Your task to perform on an android device: View the shopping cart on target. Search for "macbook" on target, select the first entry, add it to the cart, then select checkout. Image 0: 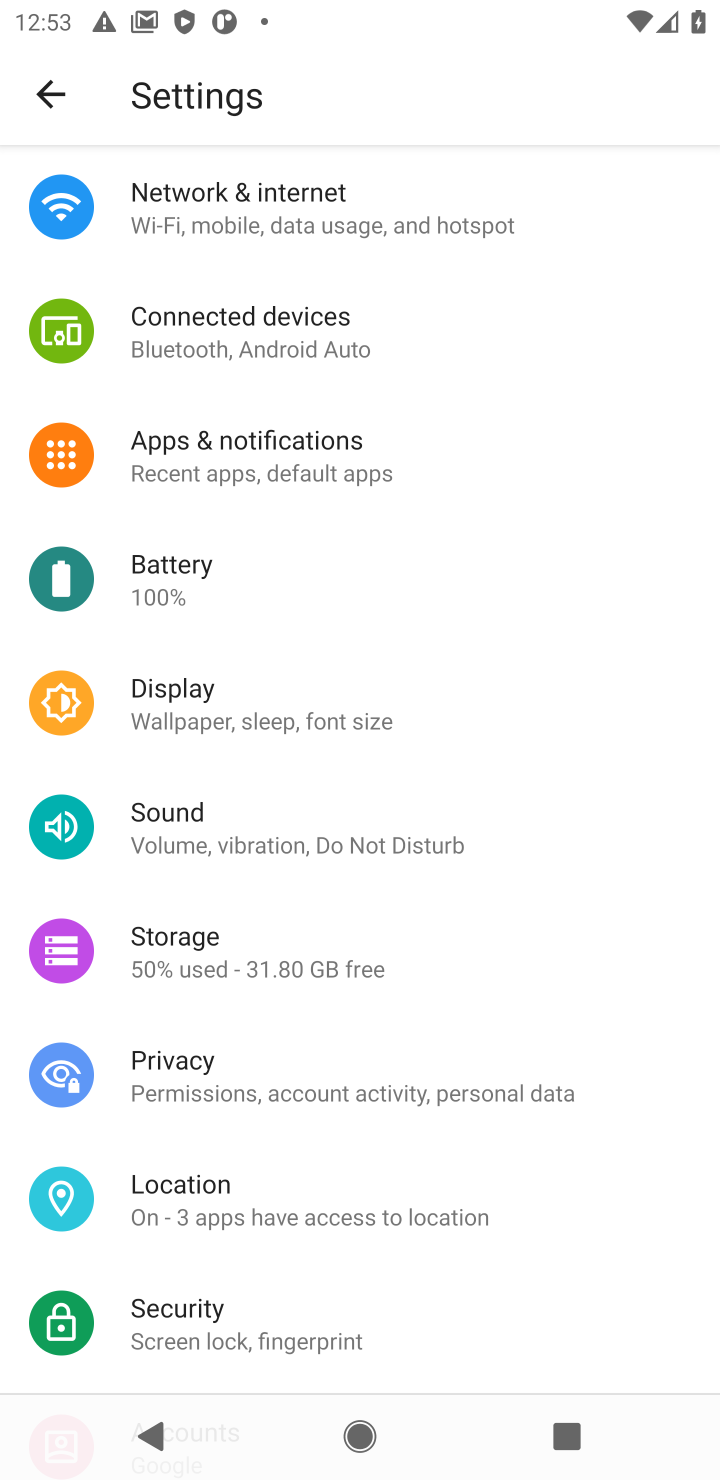
Step 0: press home button
Your task to perform on an android device: View the shopping cart on target. Search for "macbook" on target, select the first entry, add it to the cart, then select checkout. Image 1: 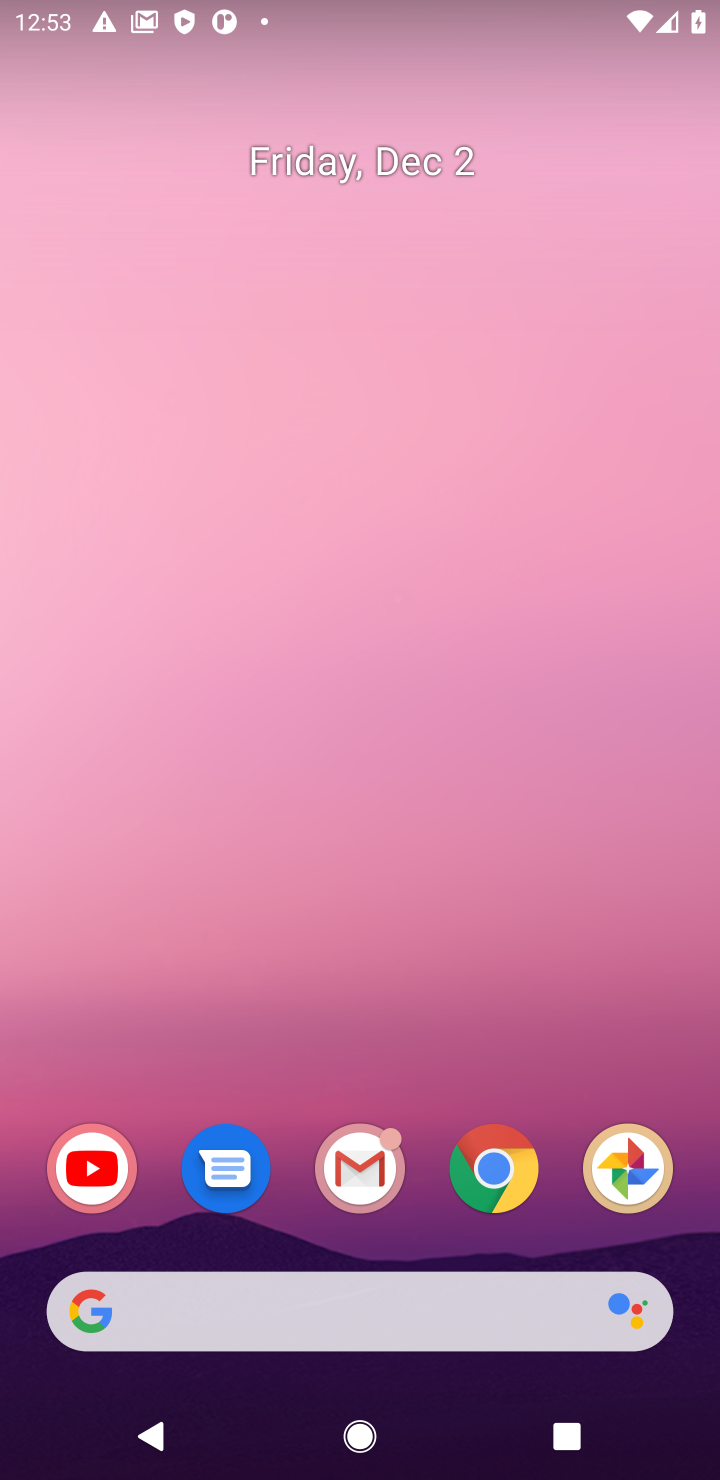
Step 1: click (477, 1172)
Your task to perform on an android device: View the shopping cart on target. Search for "macbook" on target, select the first entry, add it to the cart, then select checkout. Image 2: 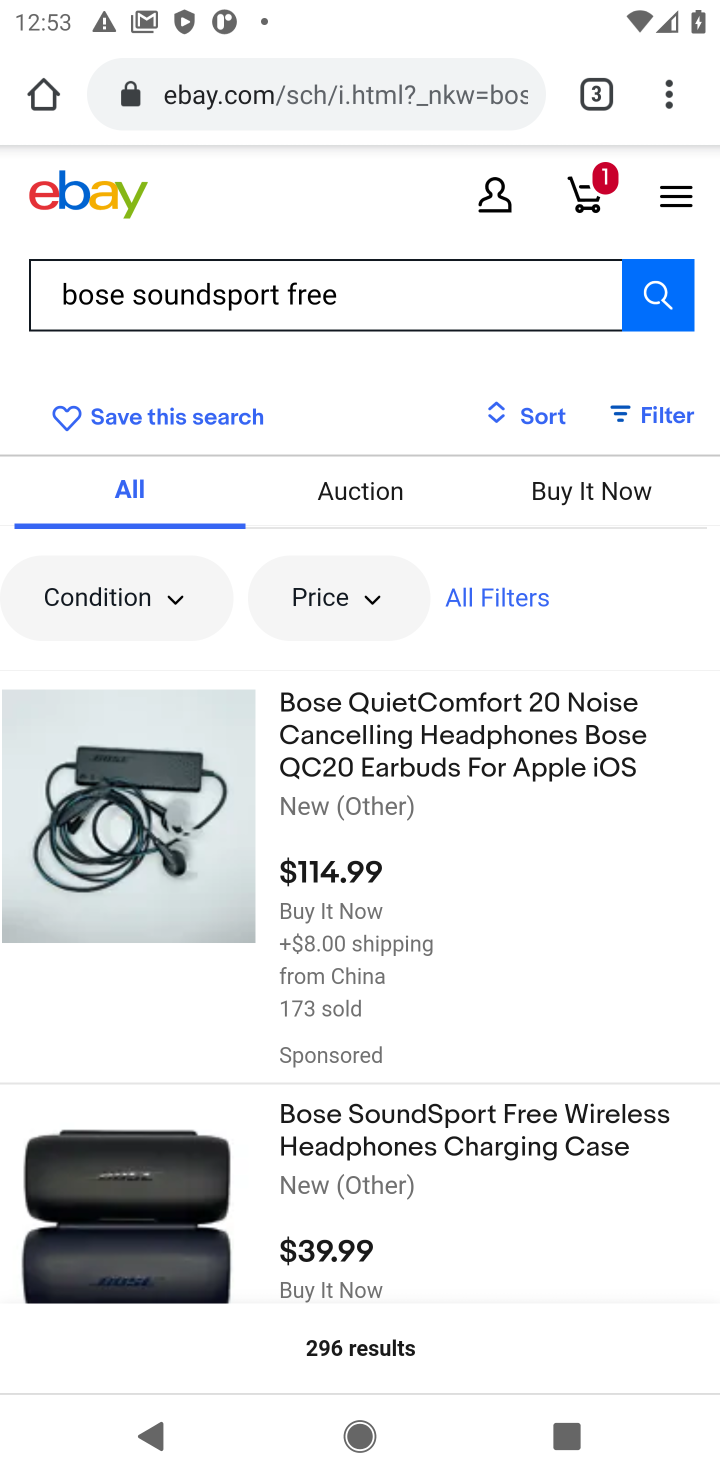
Step 2: click (255, 82)
Your task to perform on an android device: View the shopping cart on target. Search for "macbook" on target, select the first entry, add it to the cart, then select checkout. Image 3: 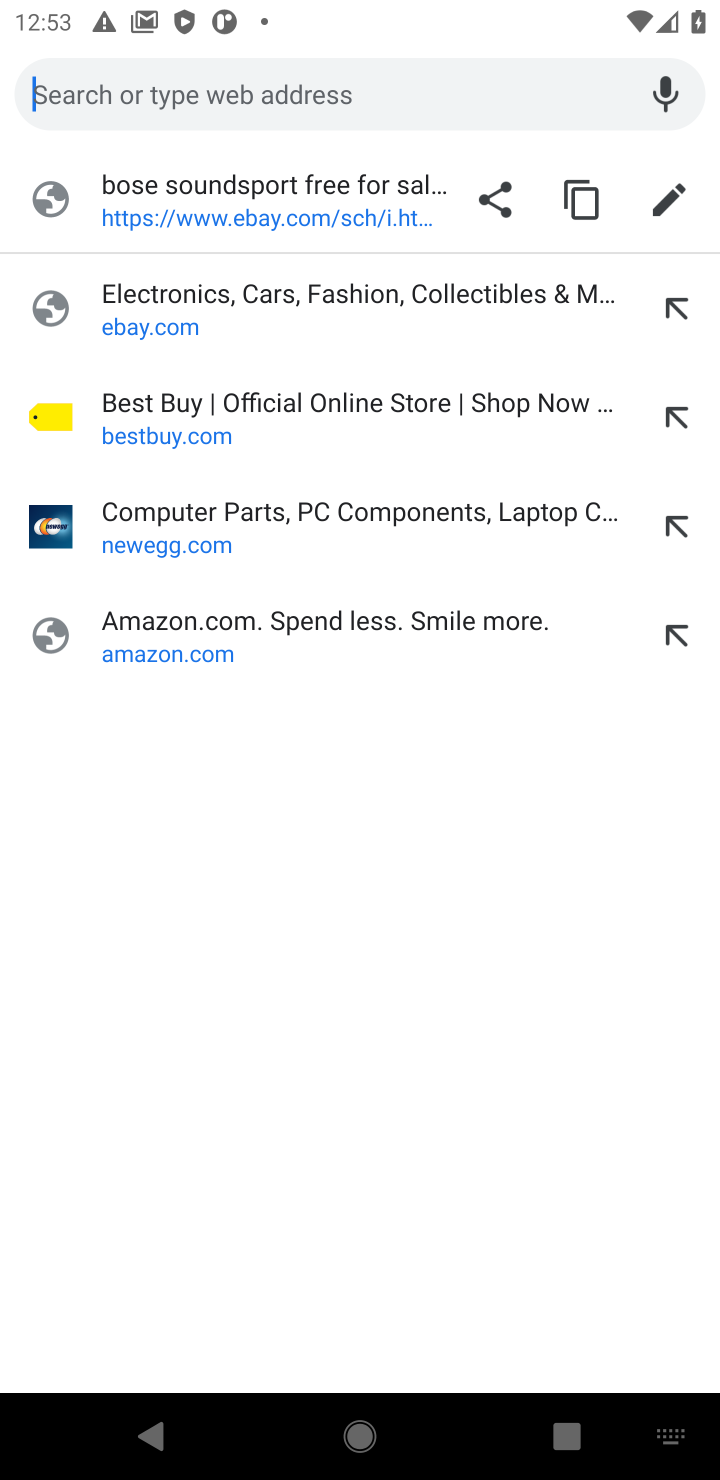
Step 3: type "target.com"
Your task to perform on an android device: View the shopping cart on target. Search for "macbook" on target, select the first entry, add it to the cart, then select checkout. Image 4: 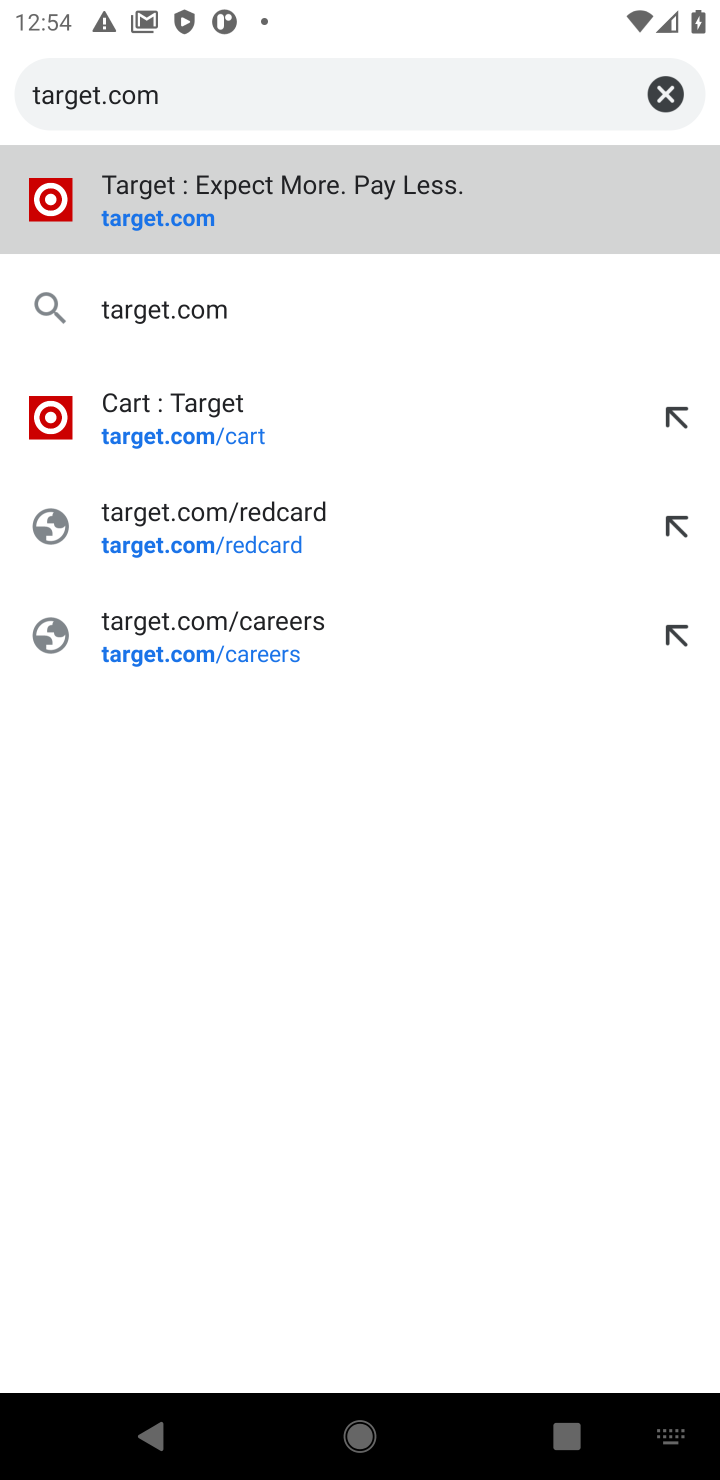
Step 4: click (156, 206)
Your task to perform on an android device: View the shopping cart on target. Search for "macbook" on target, select the first entry, add it to the cart, then select checkout. Image 5: 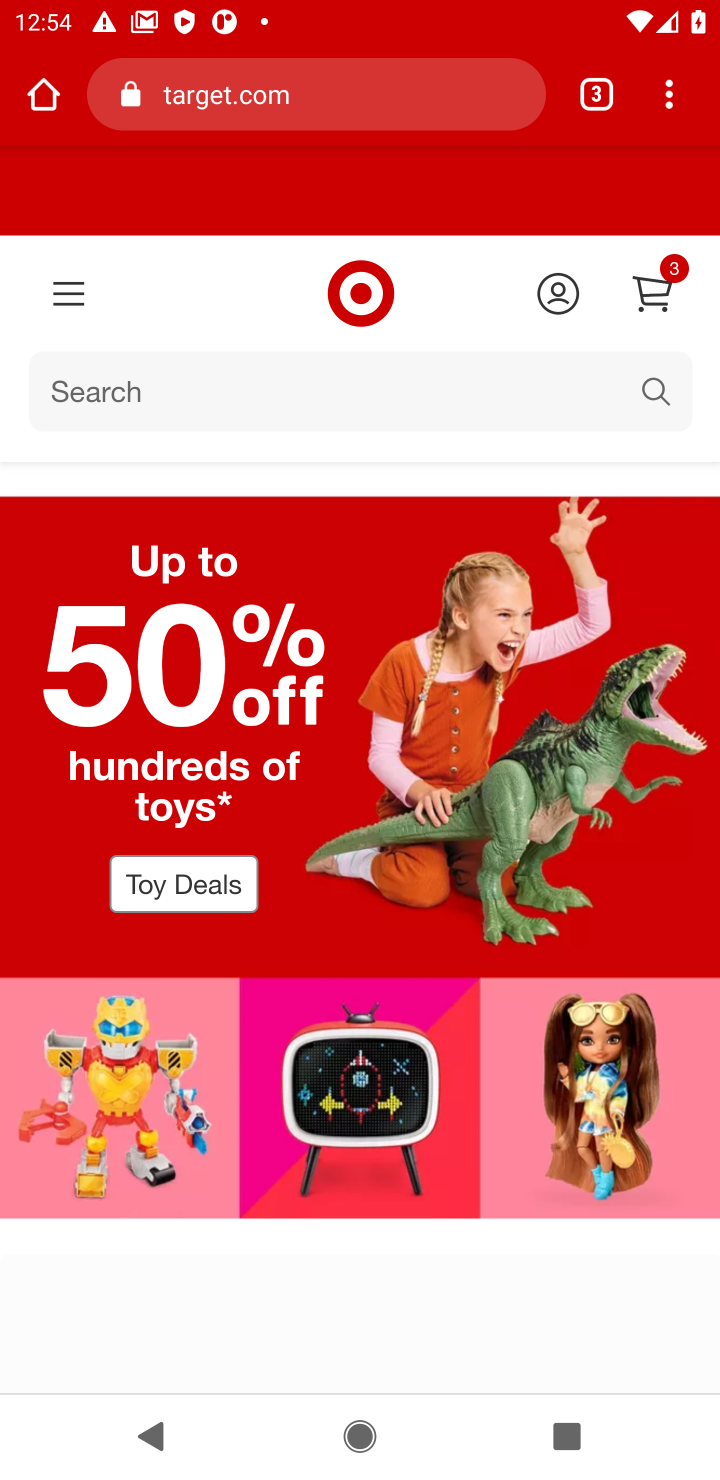
Step 5: click (658, 299)
Your task to perform on an android device: View the shopping cart on target. Search for "macbook" on target, select the first entry, add it to the cart, then select checkout. Image 6: 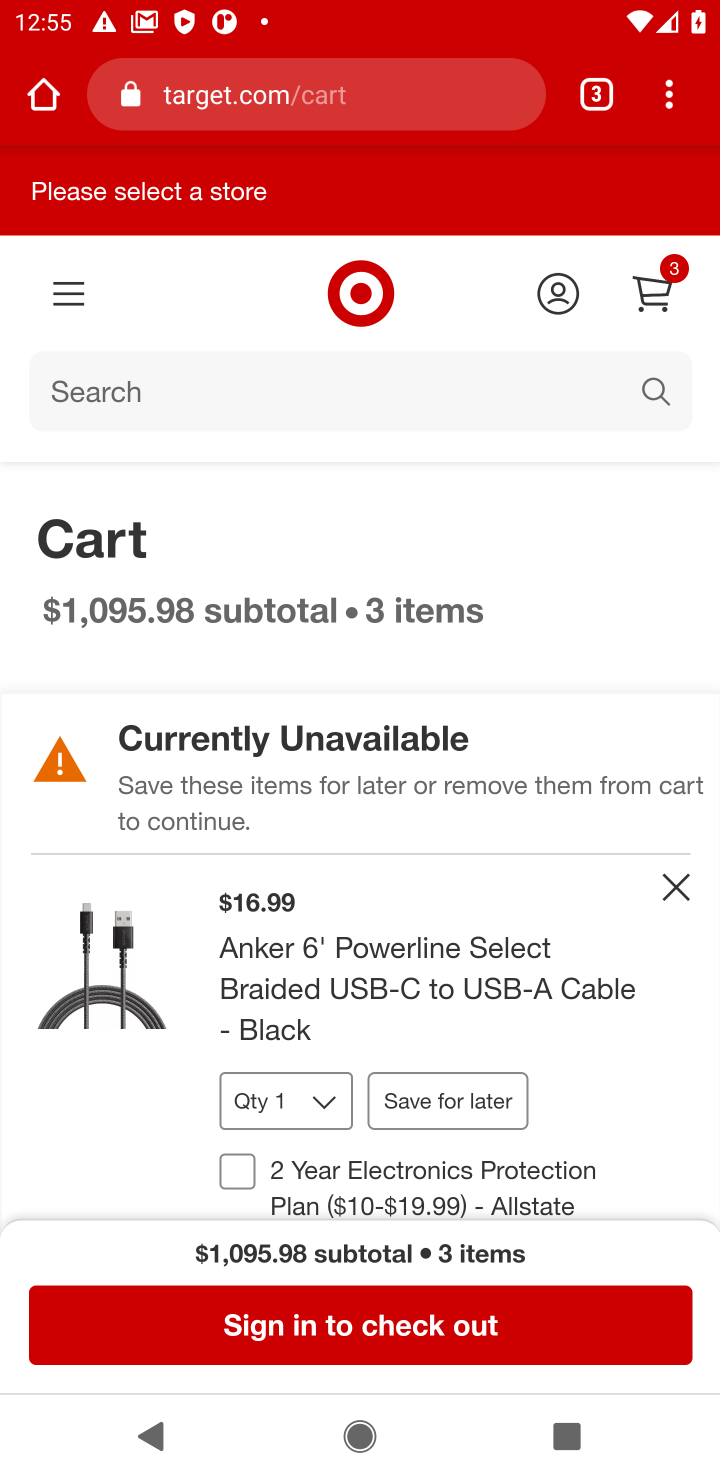
Step 6: drag from (521, 903) to (528, 609)
Your task to perform on an android device: View the shopping cart on target. Search for "macbook" on target, select the first entry, add it to the cart, then select checkout. Image 7: 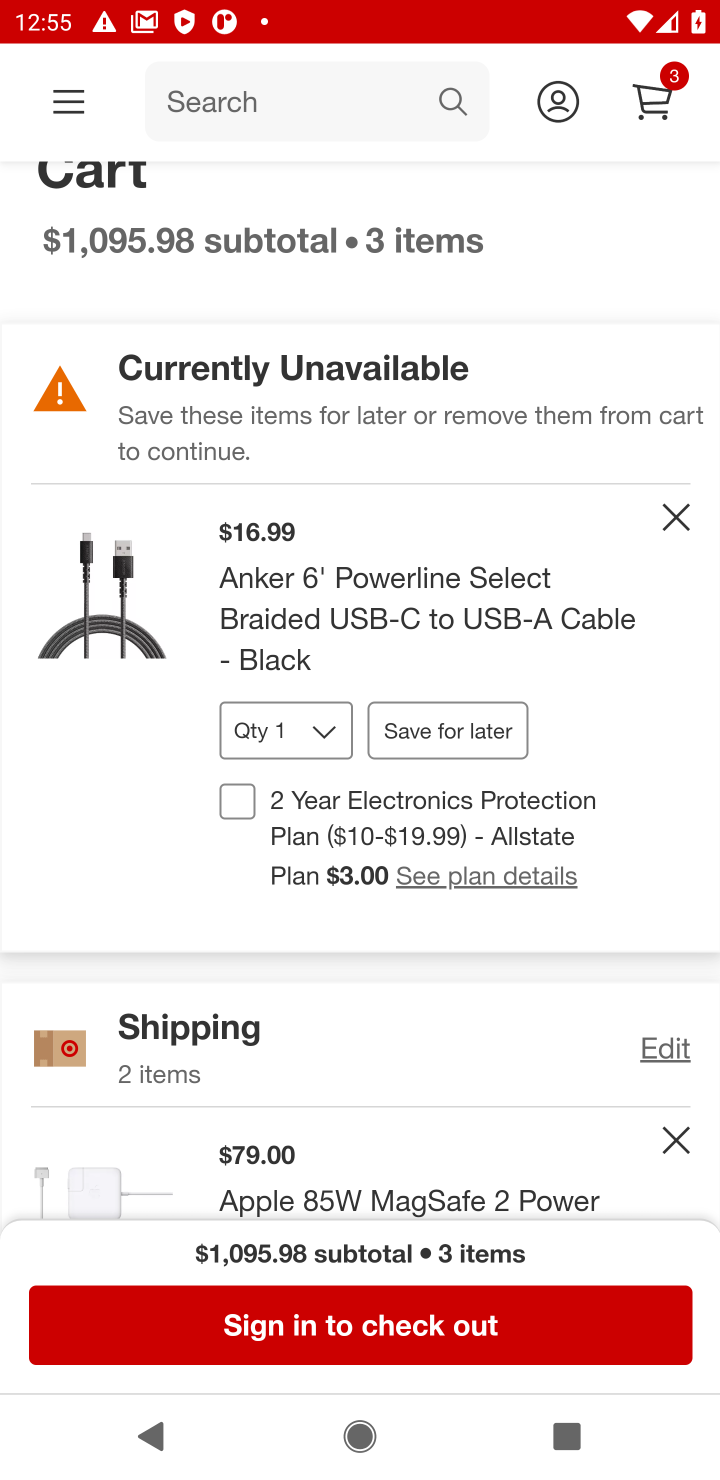
Step 7: click (197, 94)
Your task to perform on an android device: View the shopping cart on target. Search for "macbook" on target, select the first entry, add it to the cart, then select checkout. Image 8: 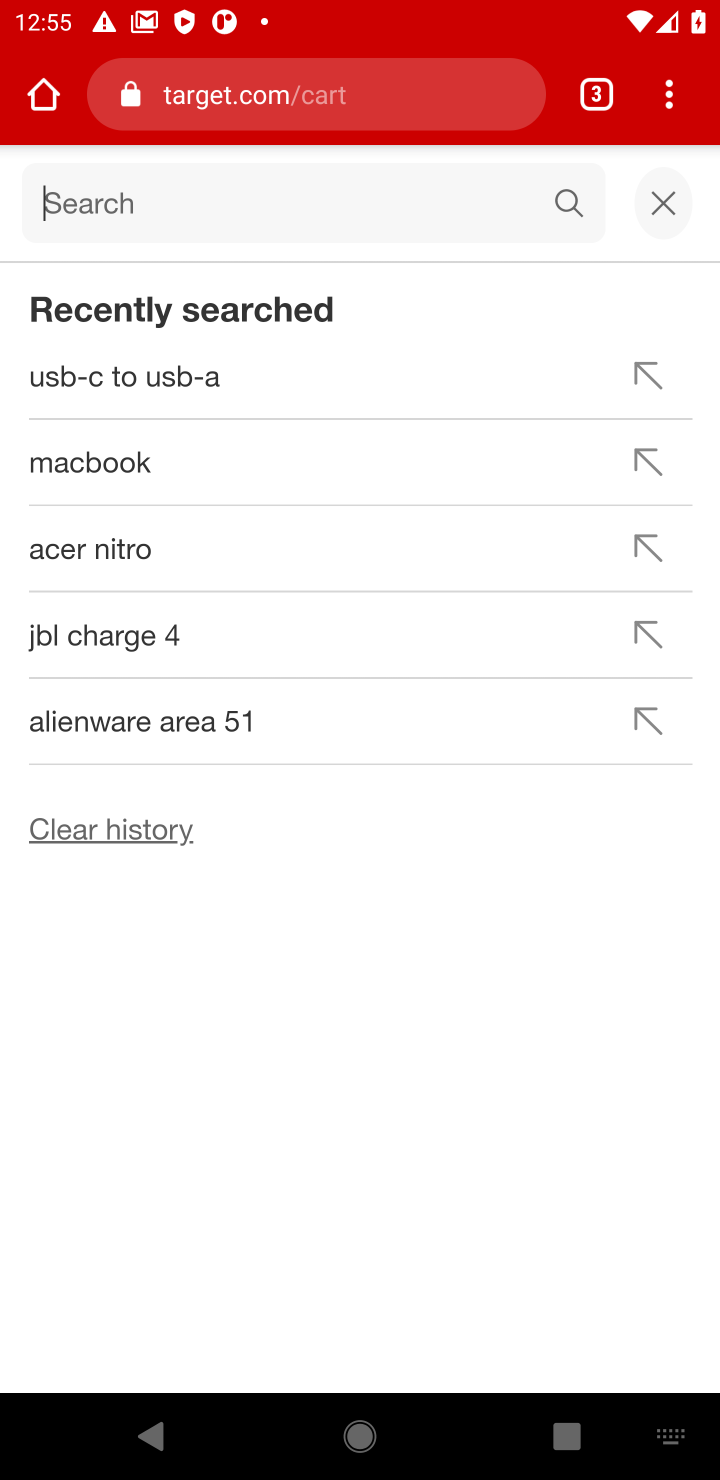
Step 8: type "macbook"
Your task to perform on an android device: View the shopping cart on target. Search for "macbook" on target, select the first entry, add it to the cart, then select checkout. Image 9: 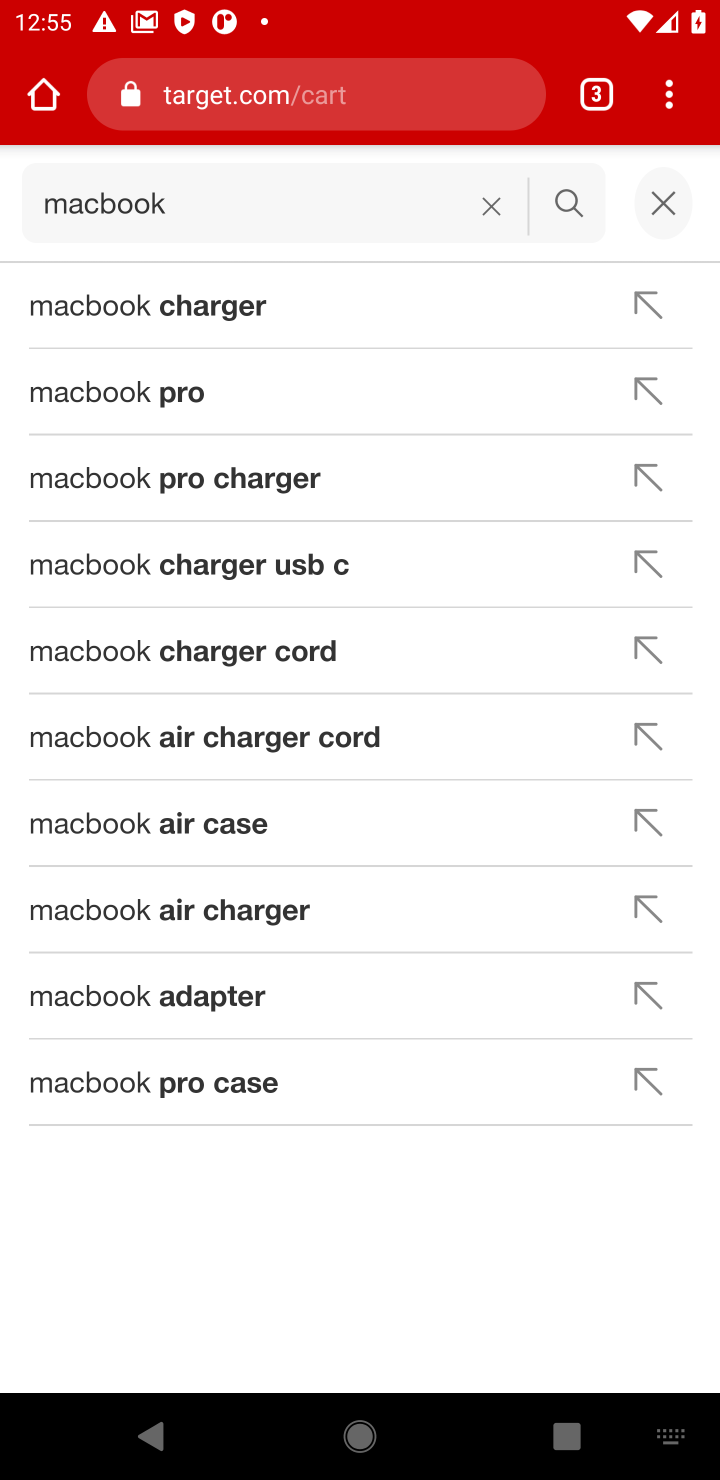
Step 9: click (562, 199)
Your task to perform on an android device: View the shopping cart on target. Search for "macbook" on target, select the first entry, add it to the cart, then select checkout. Image 10: 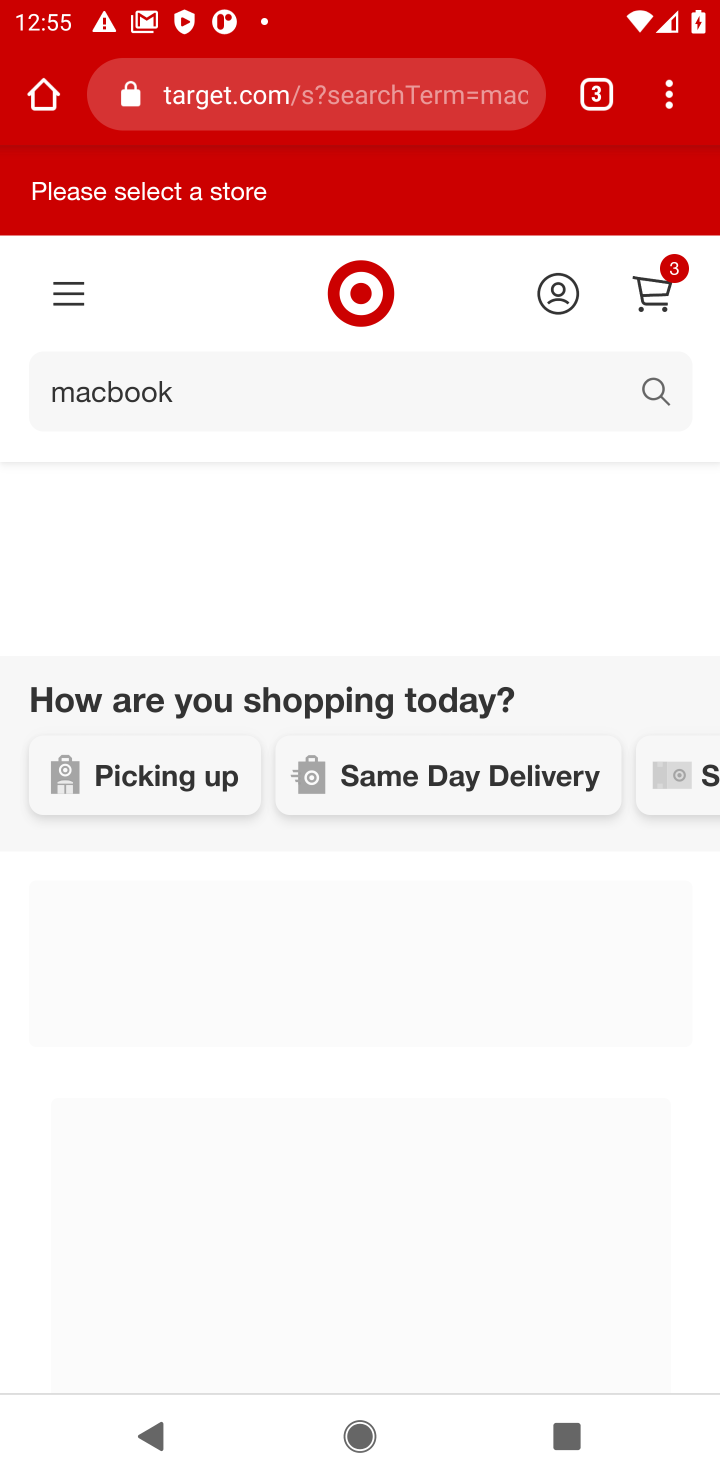
Step 10: drag from (231, 972) to (225, 520)
Your task to perform on an android device: View the shopping cart on target. Search for "macbook" on target, select the first entry, add it to the cart, then select checkout. Image 11: 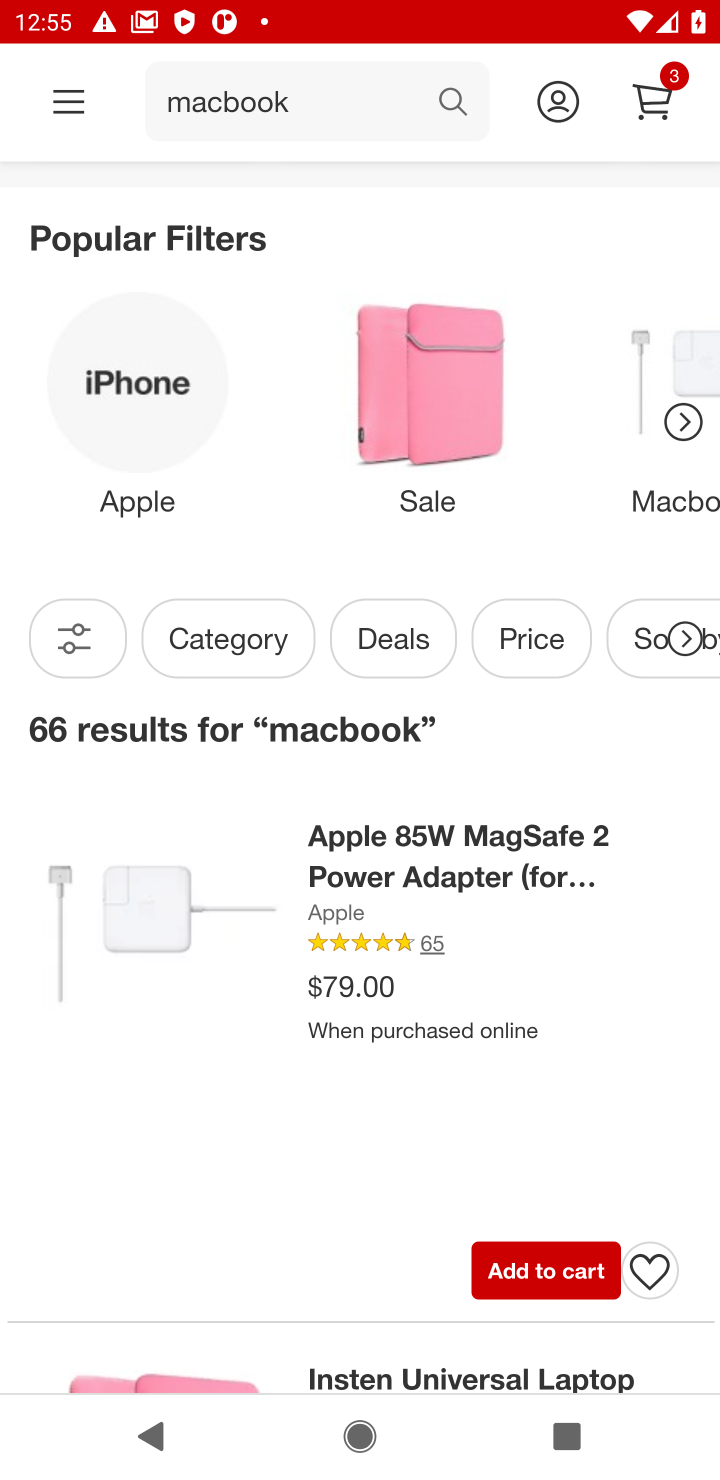
Step 11: drag from (255, 874) to (259, 677)
Your task to perform on an android device: View the shopping cart on target. Search for "macbook" on target, select the first entry, add it to the cart, then select checkout. Image 12: 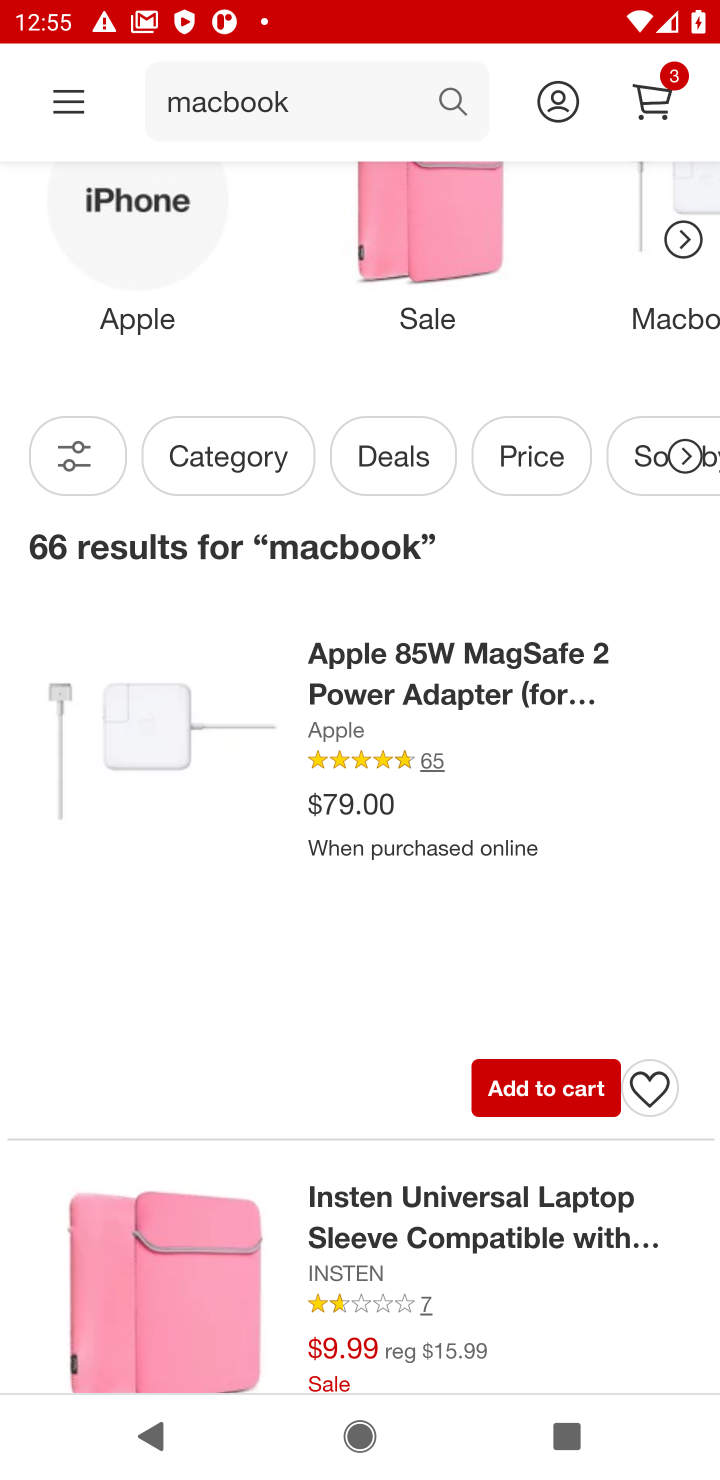
Step 12: click (376, 709)
Your task to perform on an android device: View the shopping cart on target. Search for "macbook" on target, select the first entry, add it to the cart, then select checkout. Image 13: 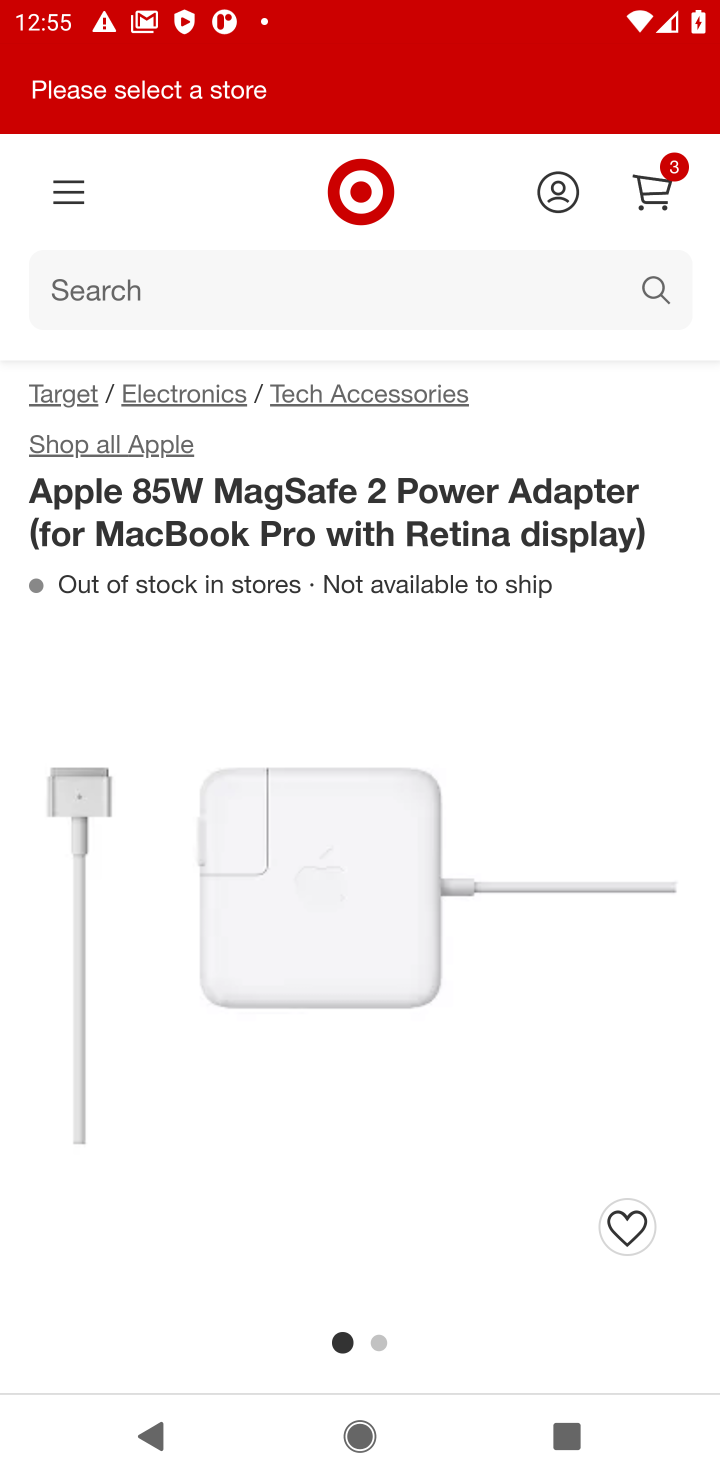
Step 13: drag from (463, 1252) to (424, 437)
Your task to perform on an android device: View the shopping cart on target. Search for "macbook" on target, select the first entry, add it to the cart, then select checkout. Image 14: 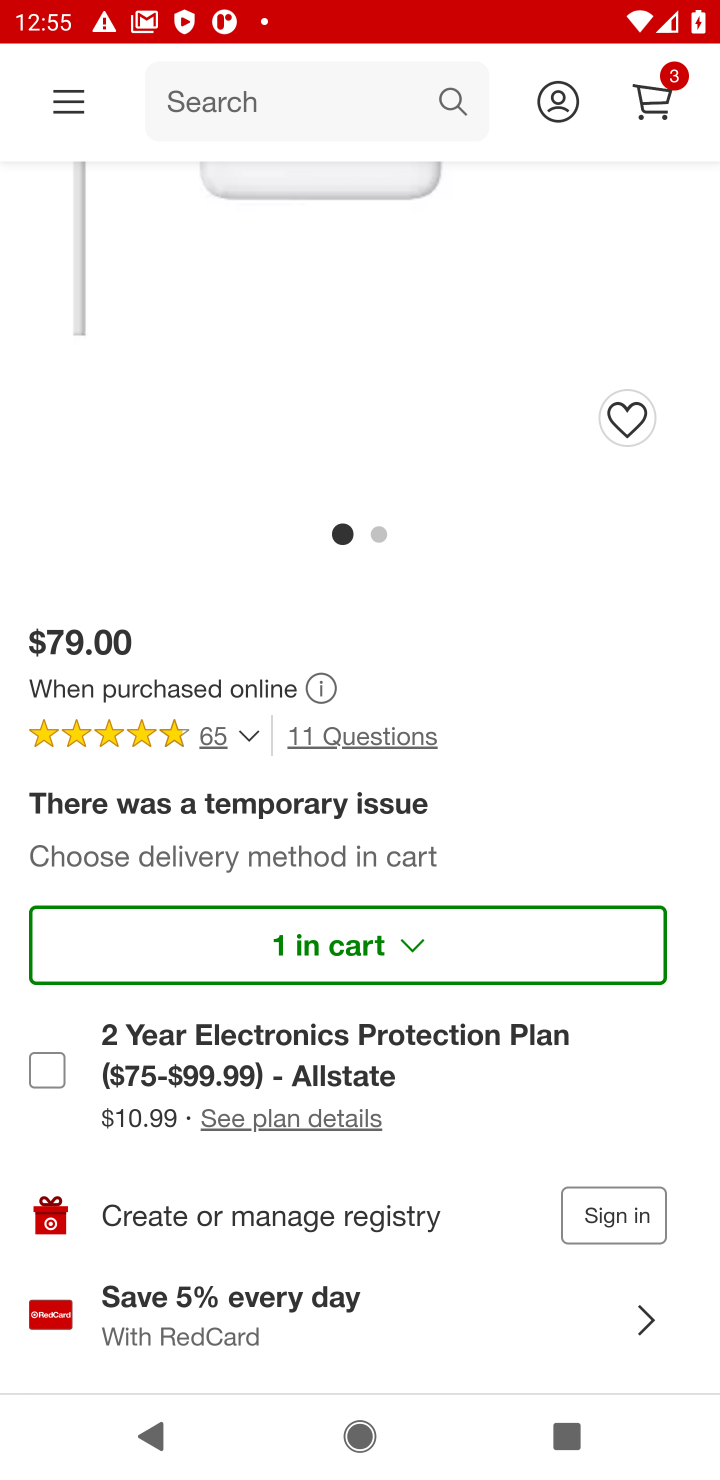
Step 14: drag from (383, 1245) to (383, 1060)
Your task to perform on an android device: View the shopping cart on target. Search for "macbook" on target, select the first entry, add it to the cart, then select checkout. Image 15: 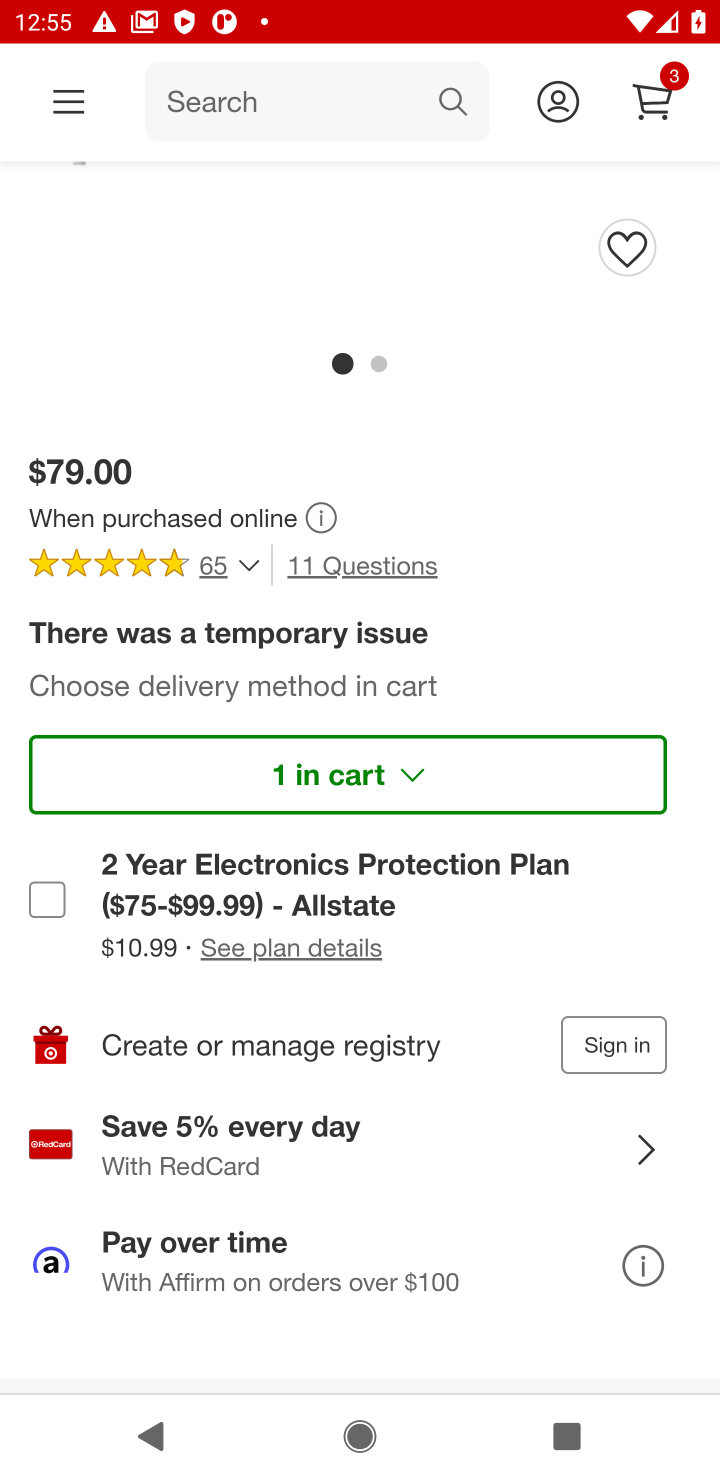
Step 15: click (410, 775)
Your task to perform on an android device: View the shopping cart on target. Search for "macbook" on target, select the first entry, add it to the cart, then select checkout. Image 16: 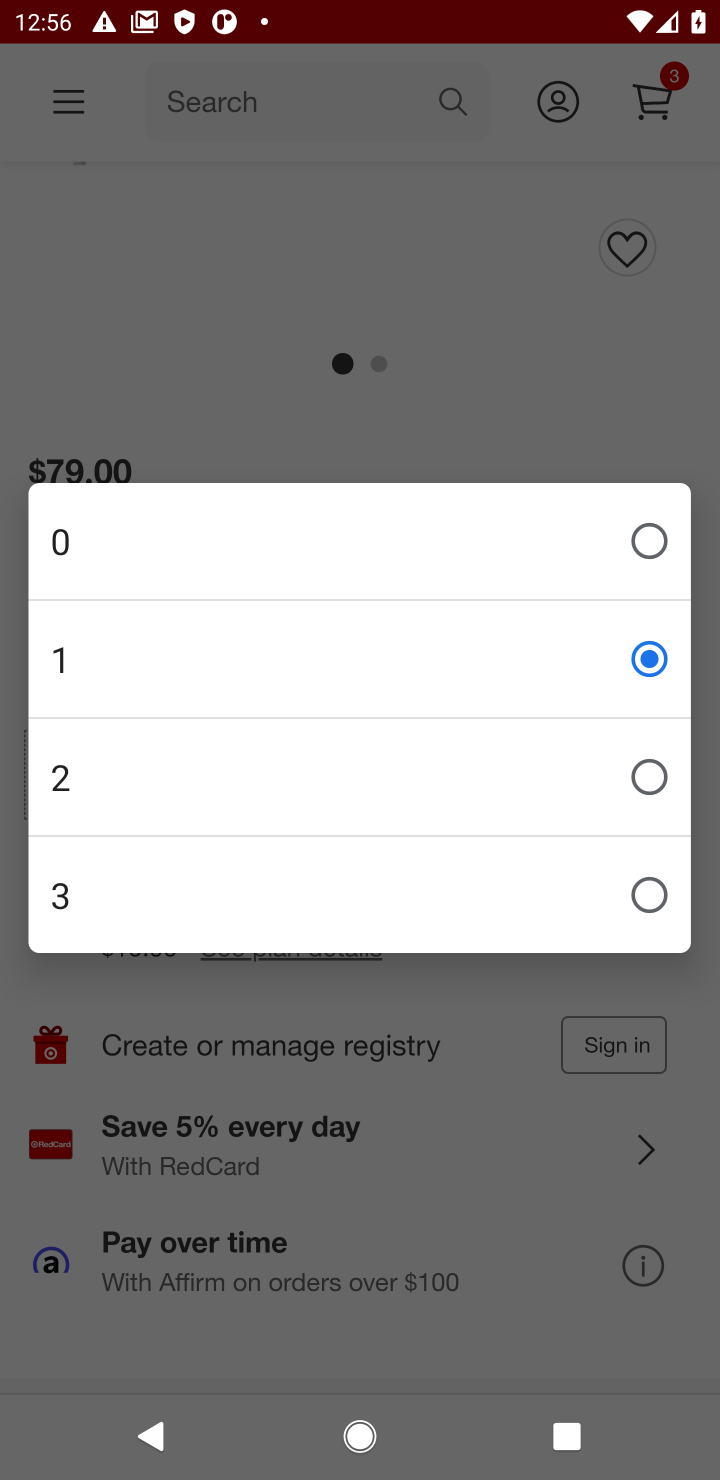
Step 16: click (112, 774)
Your task to perform on an android device: View the shopping cart on target. Search for "macbook" on target, select the first entry, add it to the cart, then select checkout. Image 17: 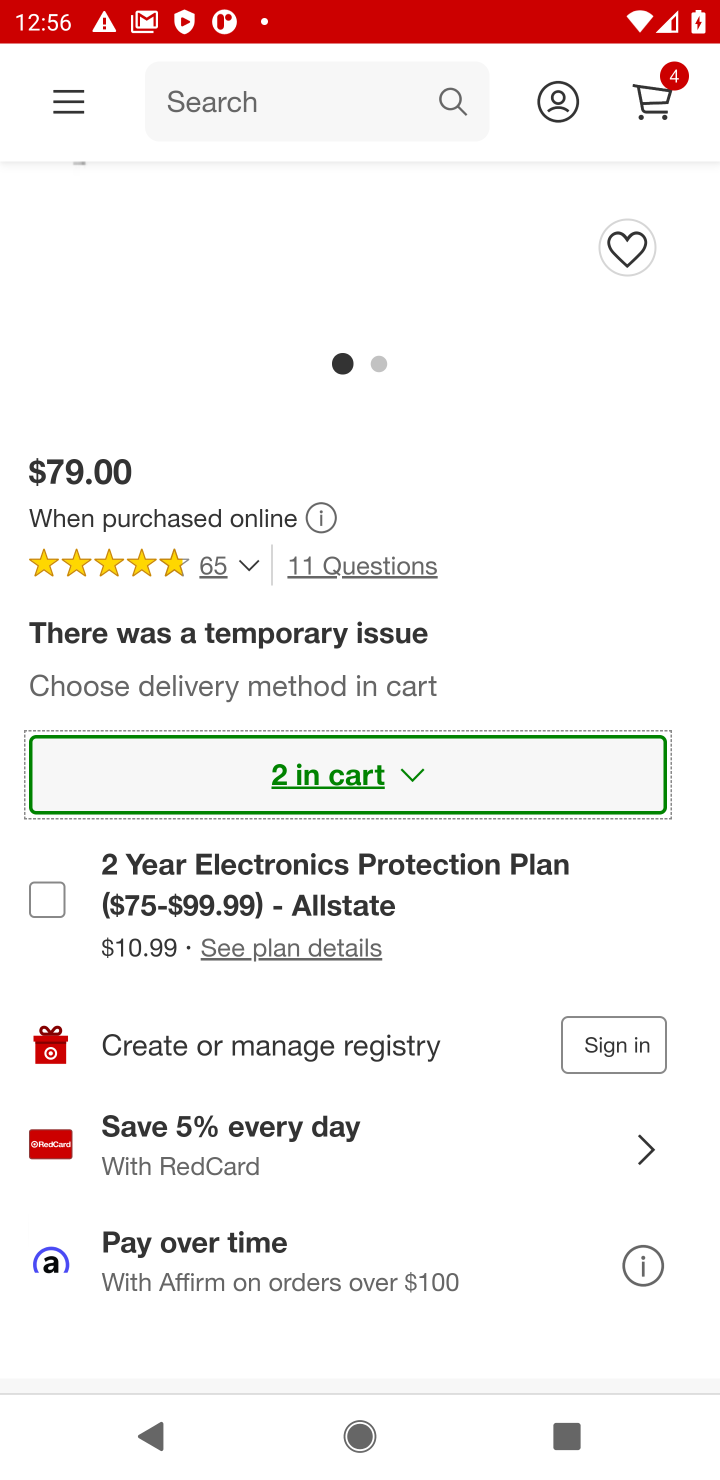
Step 17: drag from (431, 409) to (400, 590)
Your task to perform on an android device: View the shopping cart on target. Search for "macbook" on target, select the first entry, add it to the cart, then select checkout. Image 18: 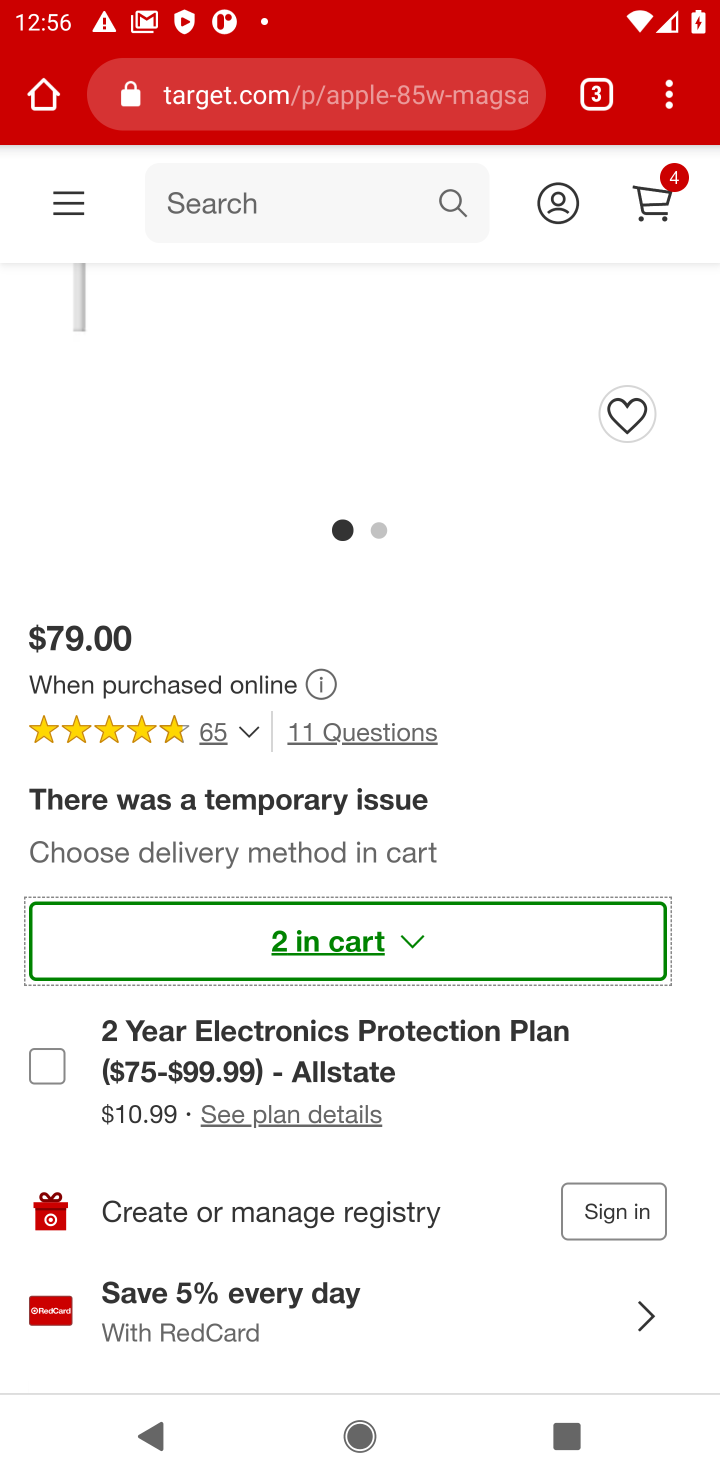
Step 18: click (660, 204)
Your task to perform on an android device: View the shopping cart on target. Search for "macbook" on target, select the first entry, add it to the cart, then select checkout. Image 19: 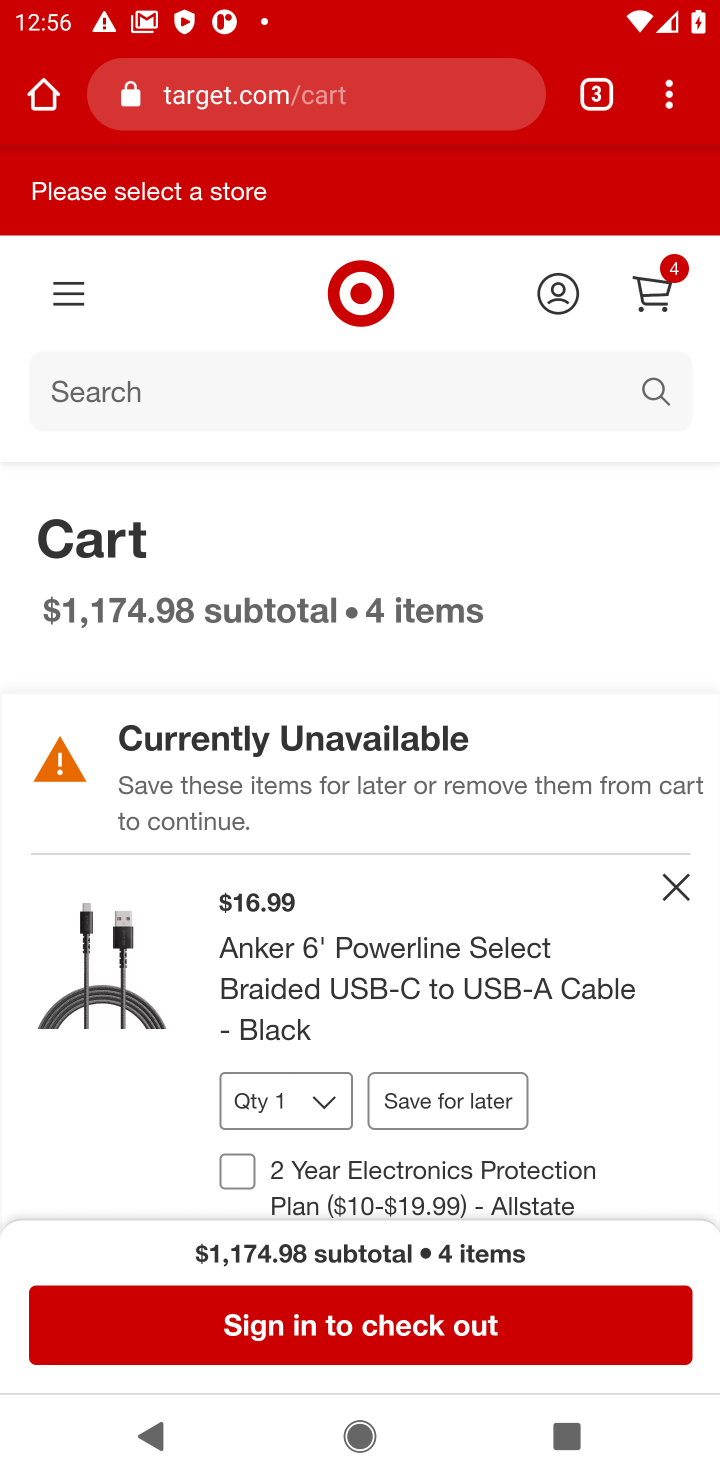
Step 19: click (402, 1323)
Your task to perform on an android device: View the shopping cart on target. Search for "macbook" on target, select the first entry, add it to the cart, then select checkout. Image 20: 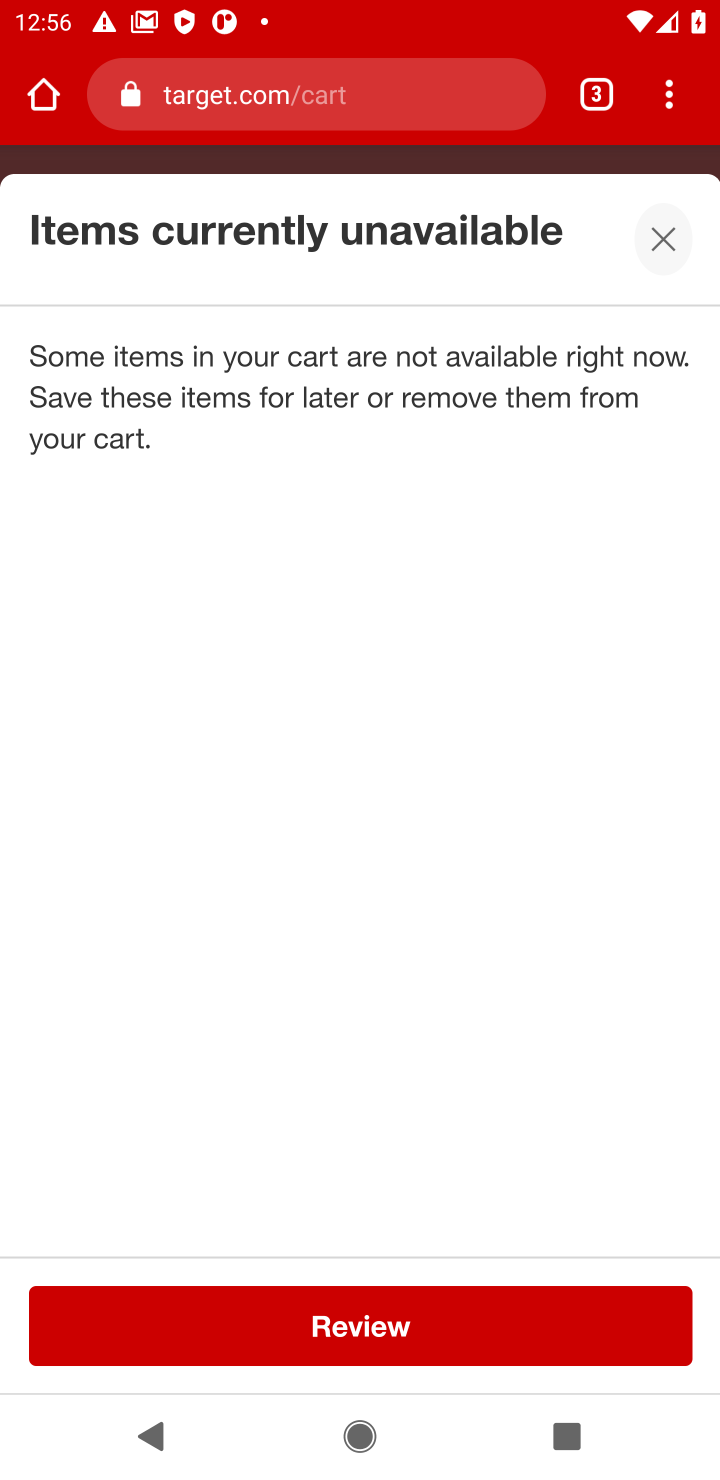
Step 20: task complete